Your task to perform on an android device: toggle priority inbox in the gmail app Image 0: 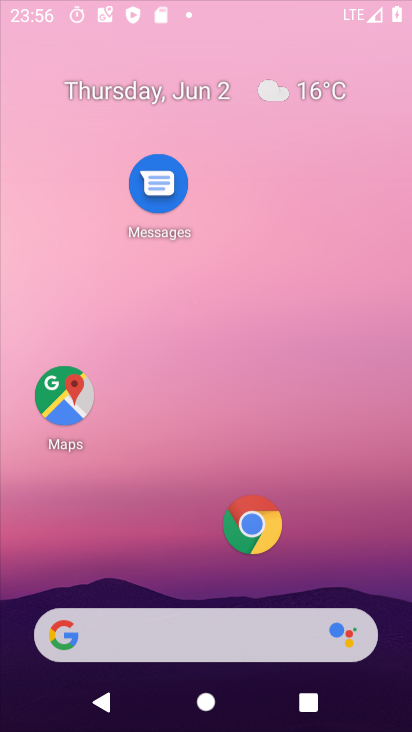
Step 0: press home button
Your task to perform on an android device: toggle priority inbox in the gmail app Image 1: 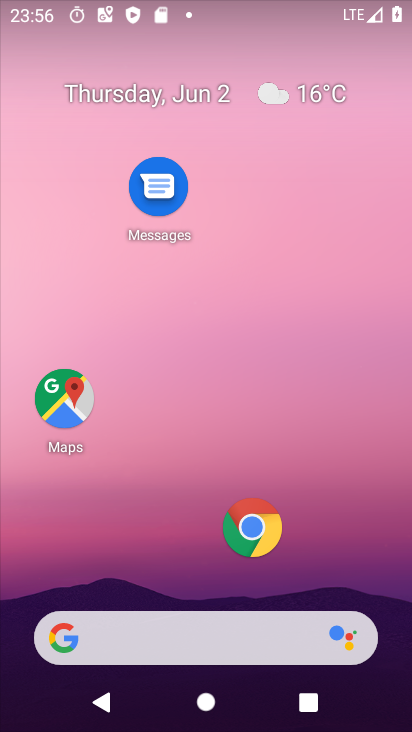
Step 1: drag from (323, 598) to (356, 24)
Your task to perform on an android device: toggle priority inbox in the gmail app Image 2: 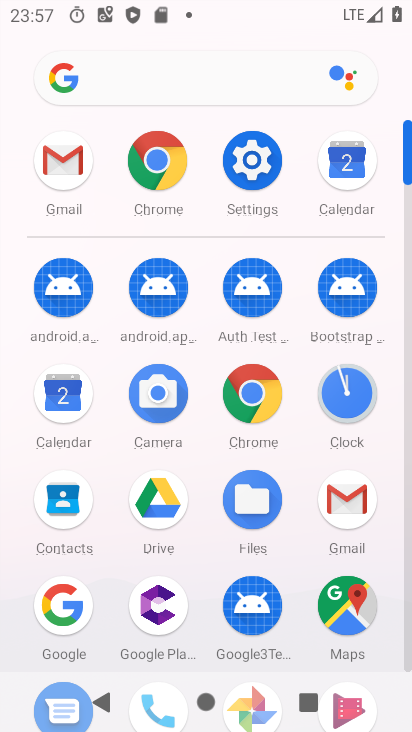
Step 2: click (345, 488)
Your task to perform on an android device: toggle priority inbox in the gmail app Image 3: 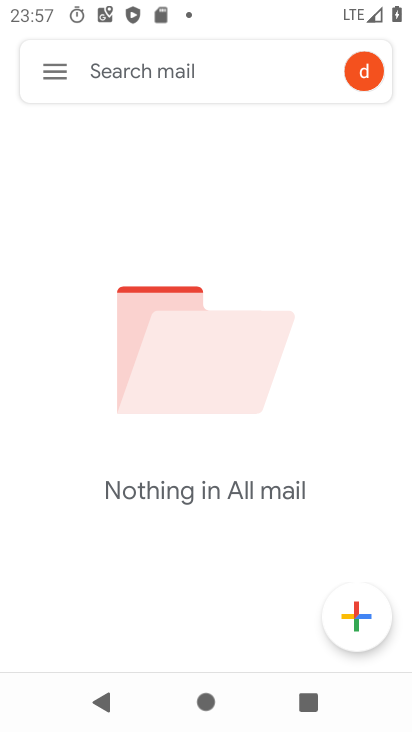
Step 3: click (57, 77)
Your task to perform on an android device: toggle priority inbox in the gmail app Image 4: 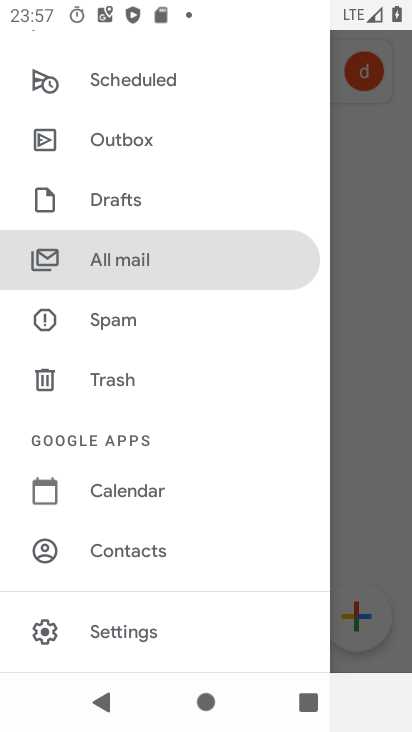
Step 4: click (173, 628)
Your task to perform on an android device: toggle priority inbox in the gmail app Image 5: 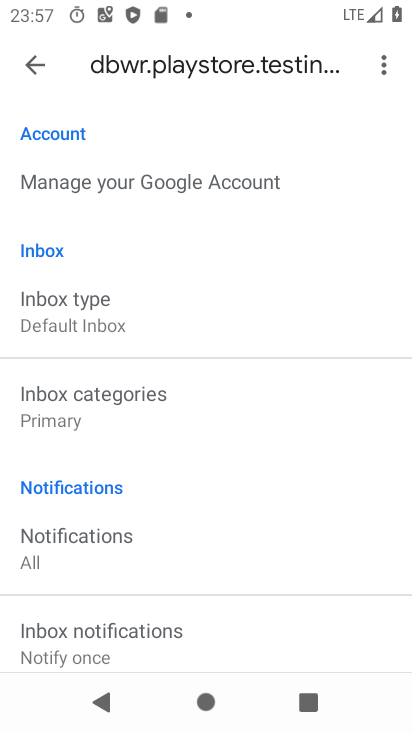
Step 5: click (141, 308)
Your task to perform on an android device: toggle priority inbox in the gmail app Image 6: 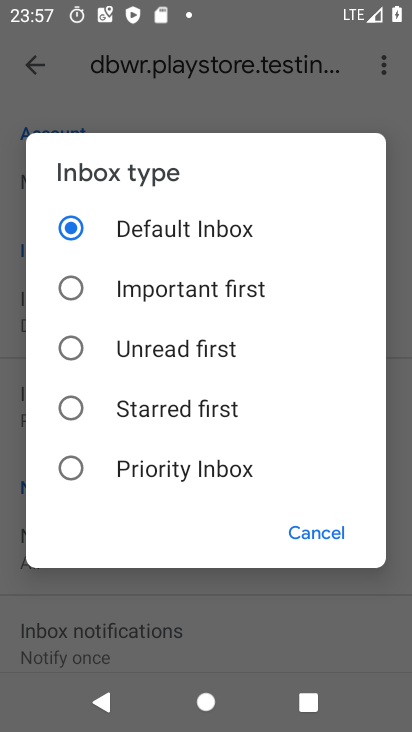
Step 6: click (71, 474)
Your task to perform on an android device: toggle priority inbox in the gmail app Image 7: 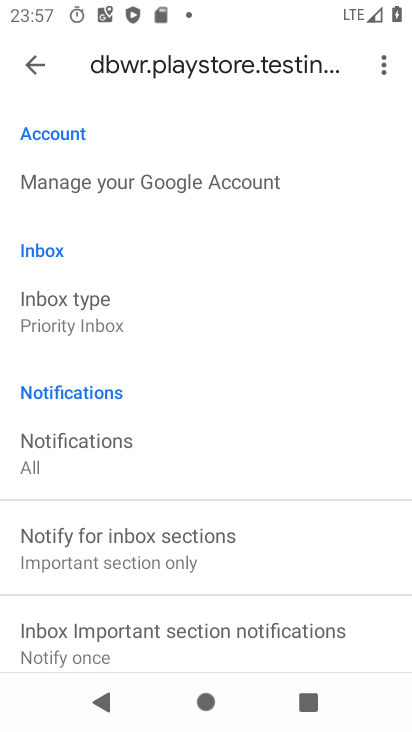
Step 7: task complete